Your task to perform on an android device: open the mobile data screen to see how much data has been used Image 0: 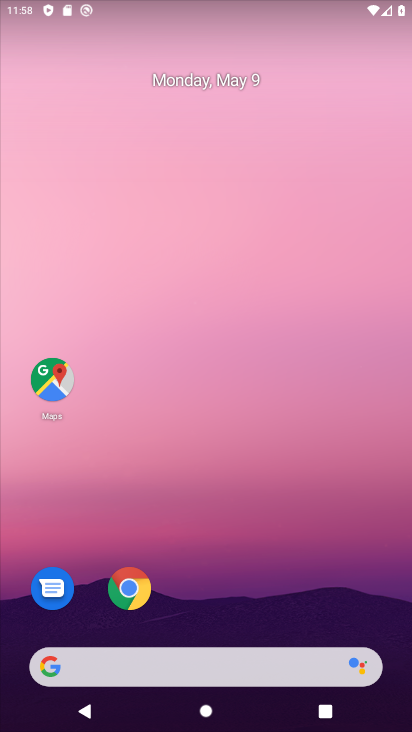
Step 0: drag from (302, 597) to (260, 19)
Your task to perform on an android device: open the mobile data screen to see how much data has been used Image 1: 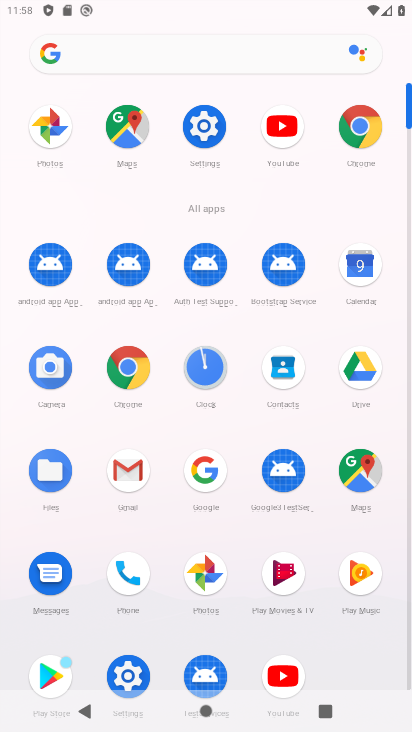
Step 1: click (204, 124)
Your task to perform on an android device: open the mobile data screen to see how much data has been used Image 2: 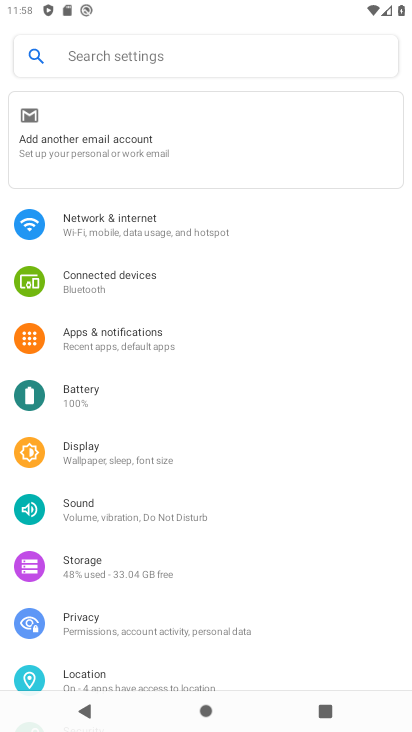
Step 2: click (181, 239)
Your task to perform on an android device: open the mobile data screen to see how much data has been used Image 3: 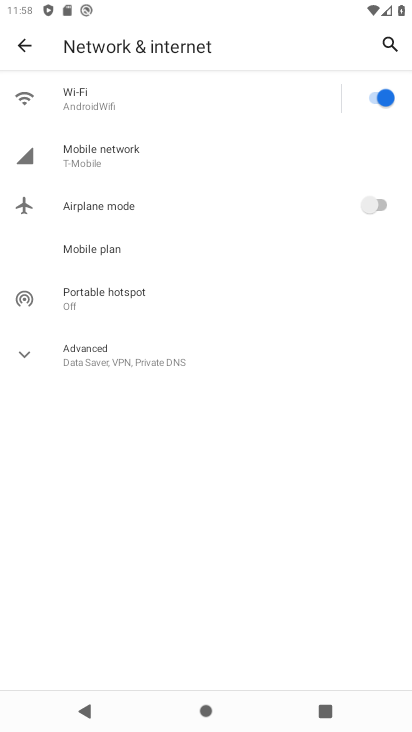
Step 3: click (243, 146)
Your task to perform on an android device: open the mobile data screen to see how much data has been used Image 4: 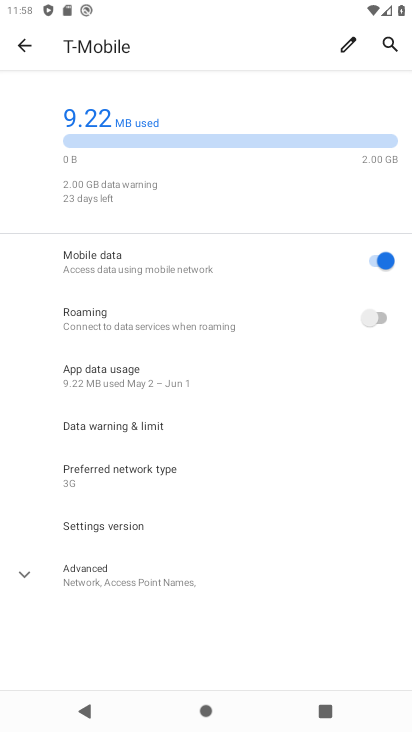
Step 4: task complete